Your task to perform on an android device: turn off location Image 0: 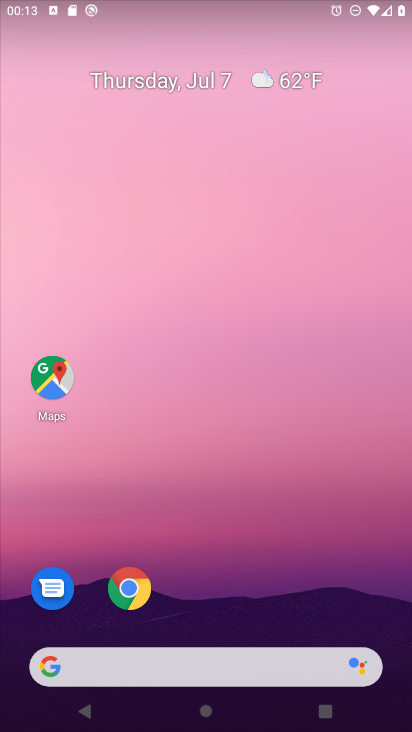
Step 0: drag from (380, 610) to (361, 108)
Your task to perform on an android device: turn off location Image 1: 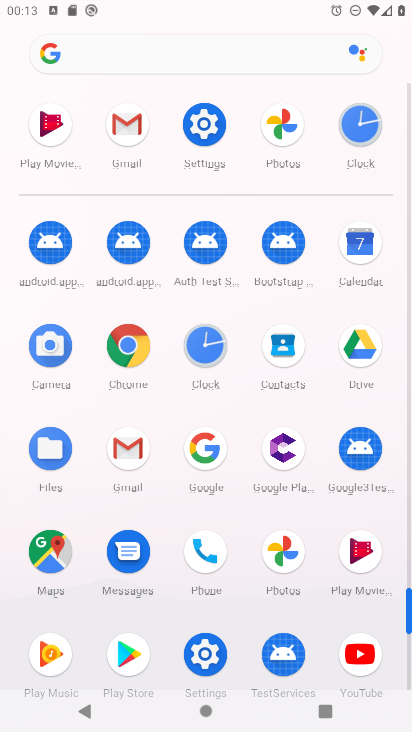
Step 1: click (206, 657)
Your task to perform on an android device: turn off location Image 2: 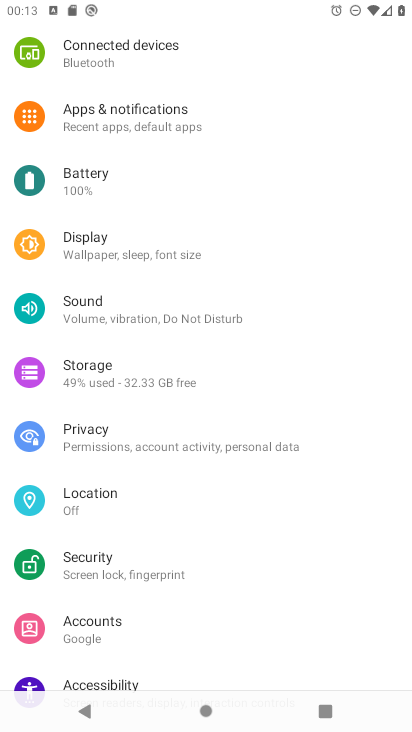
Step 2: click (84, 506)
Your task to perform on an android device: turn off location Image 3: 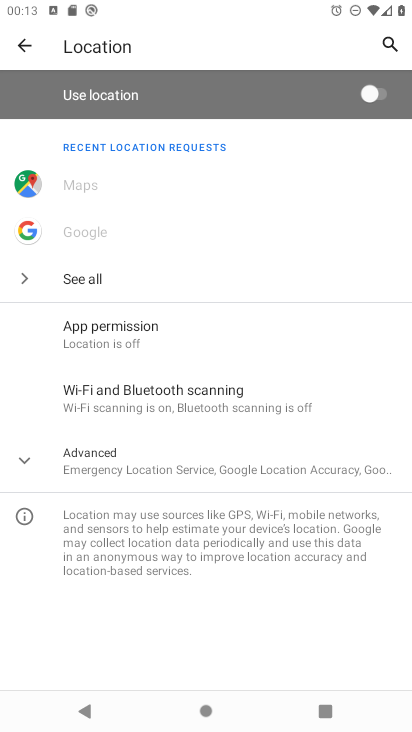
Step 3: task complete